Your task to perform on an android device: turn off improve location accuracy Image 0: 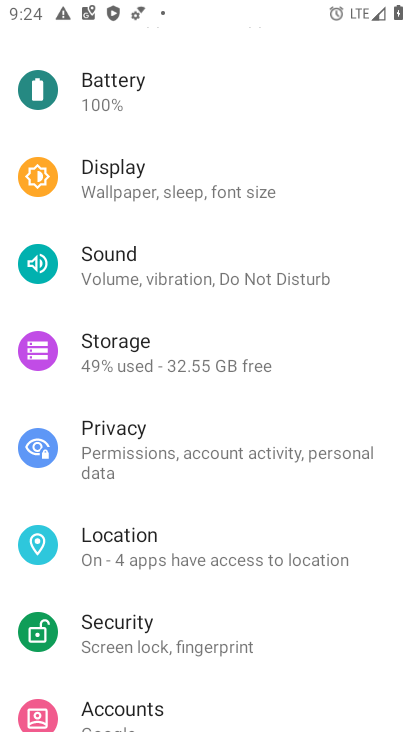
Step 0: press home button
Your task to perform on an android device: turn off improve location accuracy Image 1: 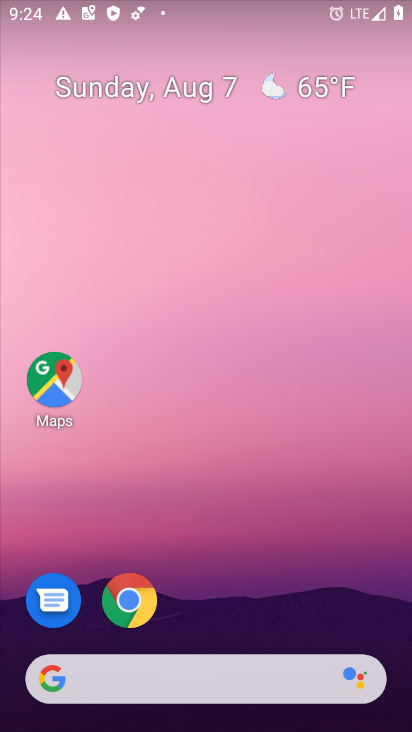
Step 1: drag from (177, 117) to (178, 19)
Your task to perform on an android device: turn off improve location accuracy Image 2: 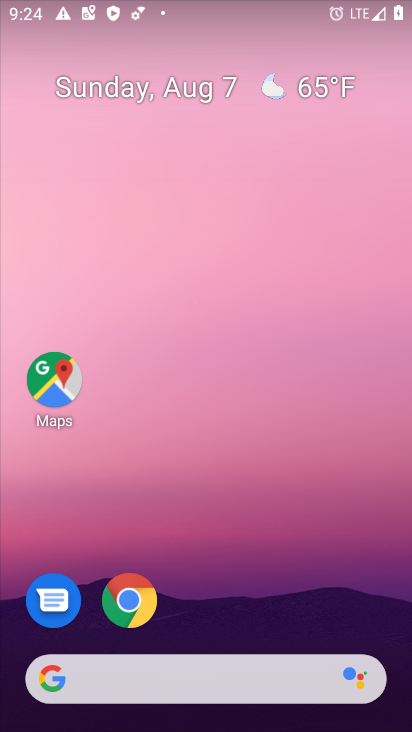
Step 2: drag from (208, 539) to (208, 189)
Your task to perform on an android device: turn off improve location accuracy Image 3: 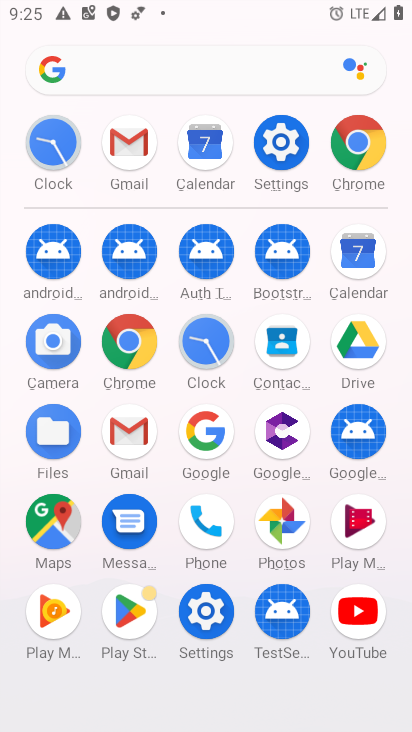
Step 3: click (279, 142)
Your task to perform on an android device: turn off improve location accuracy Image 4: 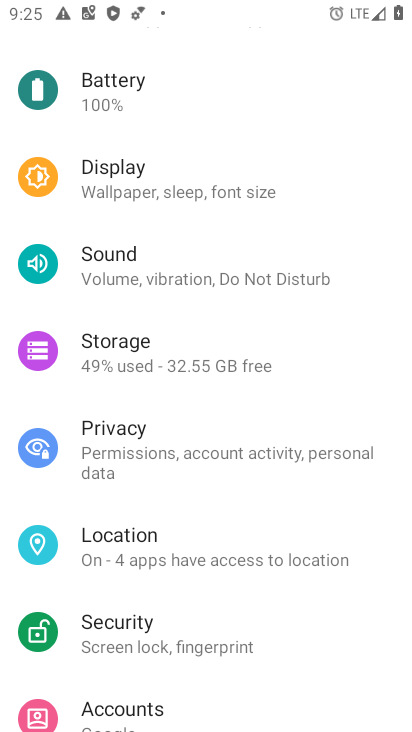
Step 4: click (110, 559)
Your task to perform on an android device: turn off improve location accuracy Image 5: 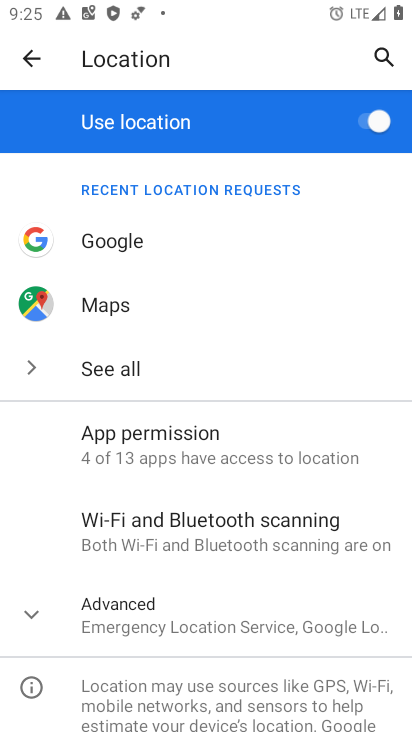
Step 5: click (101, 621)
Your task to perform on an android device: turn off improve location accuracy Image 6: 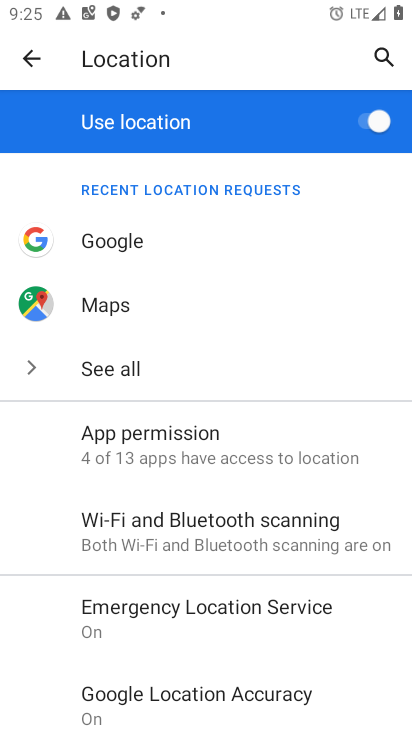
Step 6: drag from (192, 565) to (212, 338)
Your task to perform on an android device: turn off improve location accuracy Image 7: 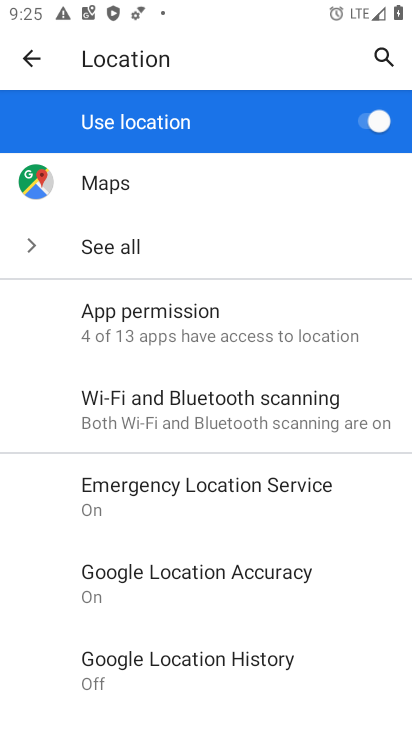
Step 7: click (217, 587)
Your task to perform on an android device: turn off improve location accuracy Image 8: 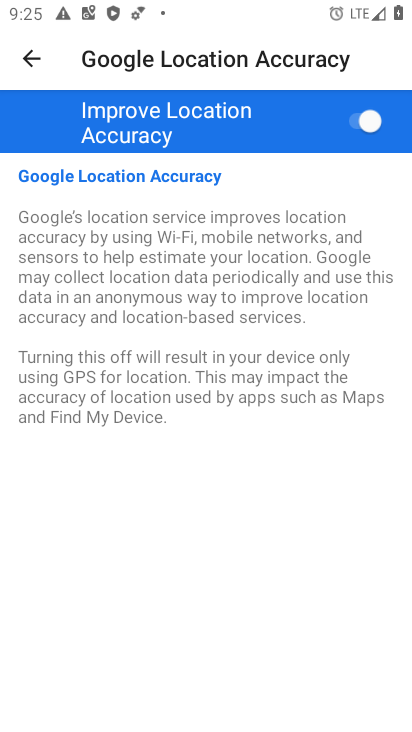
Step 8: click (361, 116)
Your task to perform on an android device: turn off improve location accuracy Image 9: 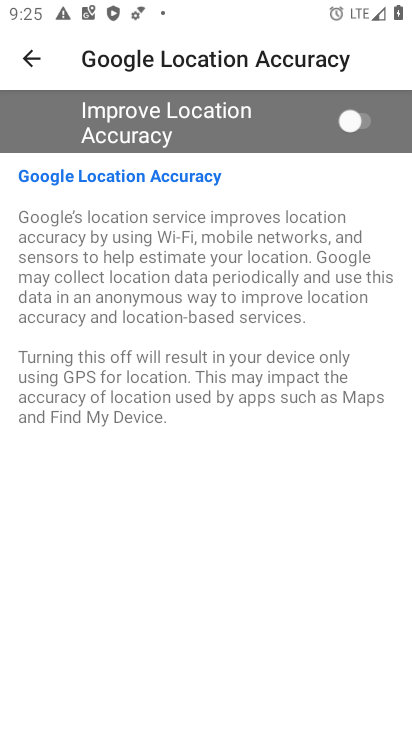
Step 9: task complete